Your task to perform on an android device: turn off location Image 0: 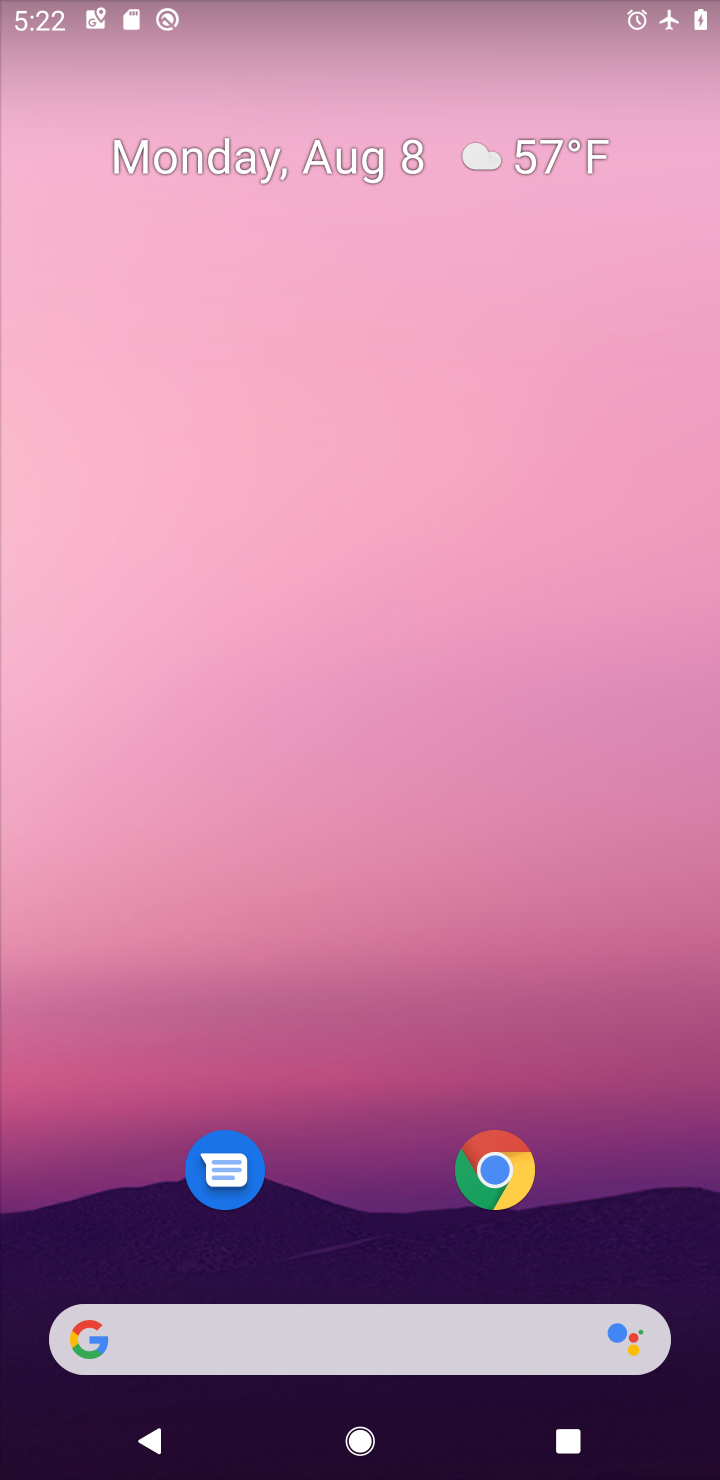
Step 0: drag from (316, 595) to (316, 445)
Your task to perform on an android device: turn off location Image 1: 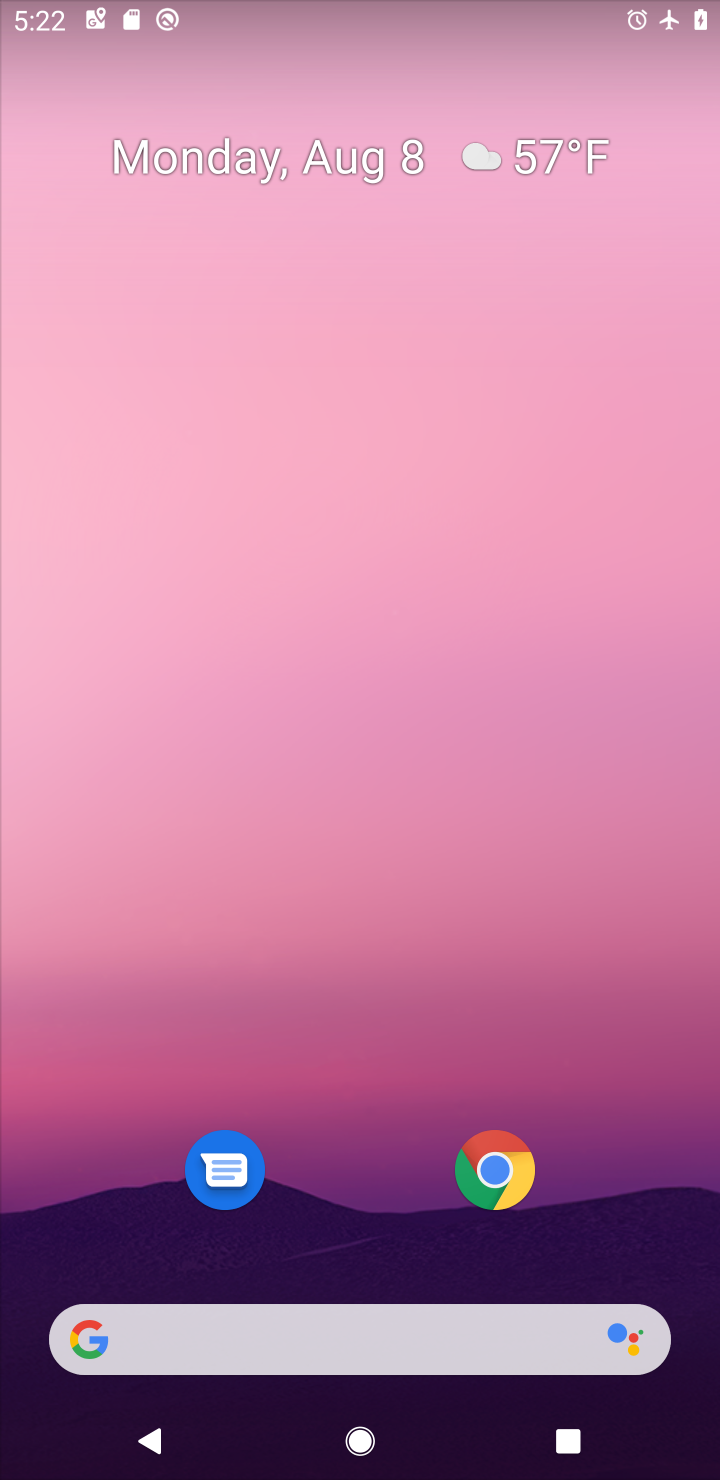
Step 1: drag from (361, 1176) to (361, 270)
Your task to perform on an android device: turn off location Image 2: 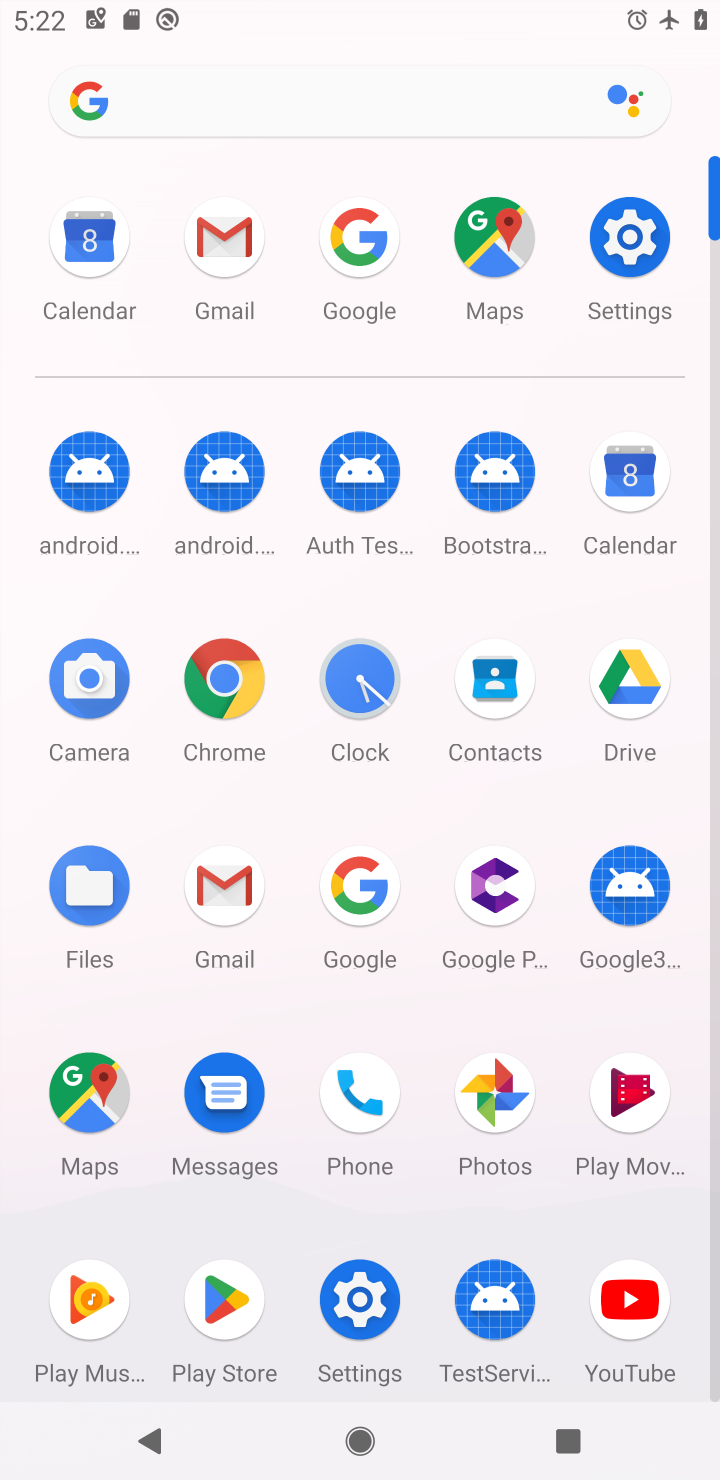
Step 2: click (593, 255)
Your task to perform on an android device: turn off location Image 3: 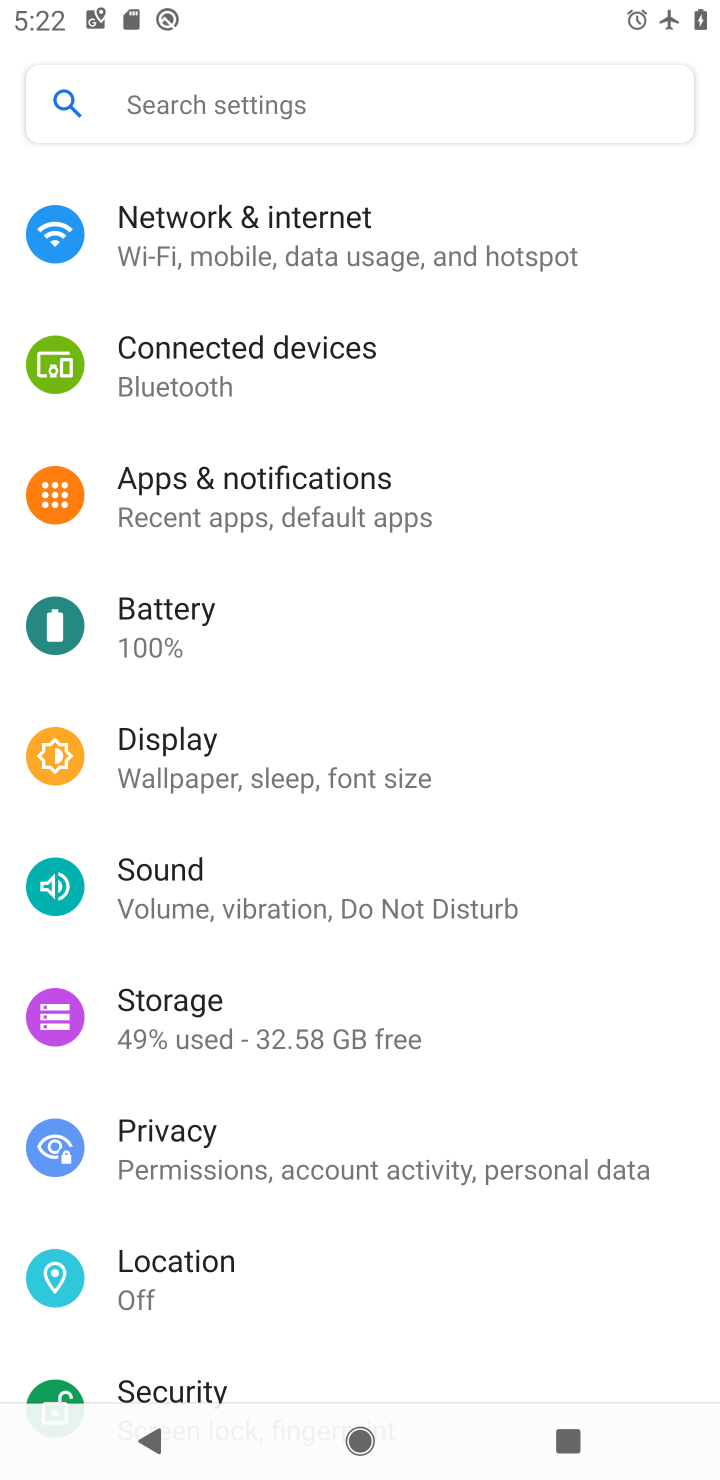
Step 3: click (207, 1256)
Your task to perform on an android device: turn off location Image 4: 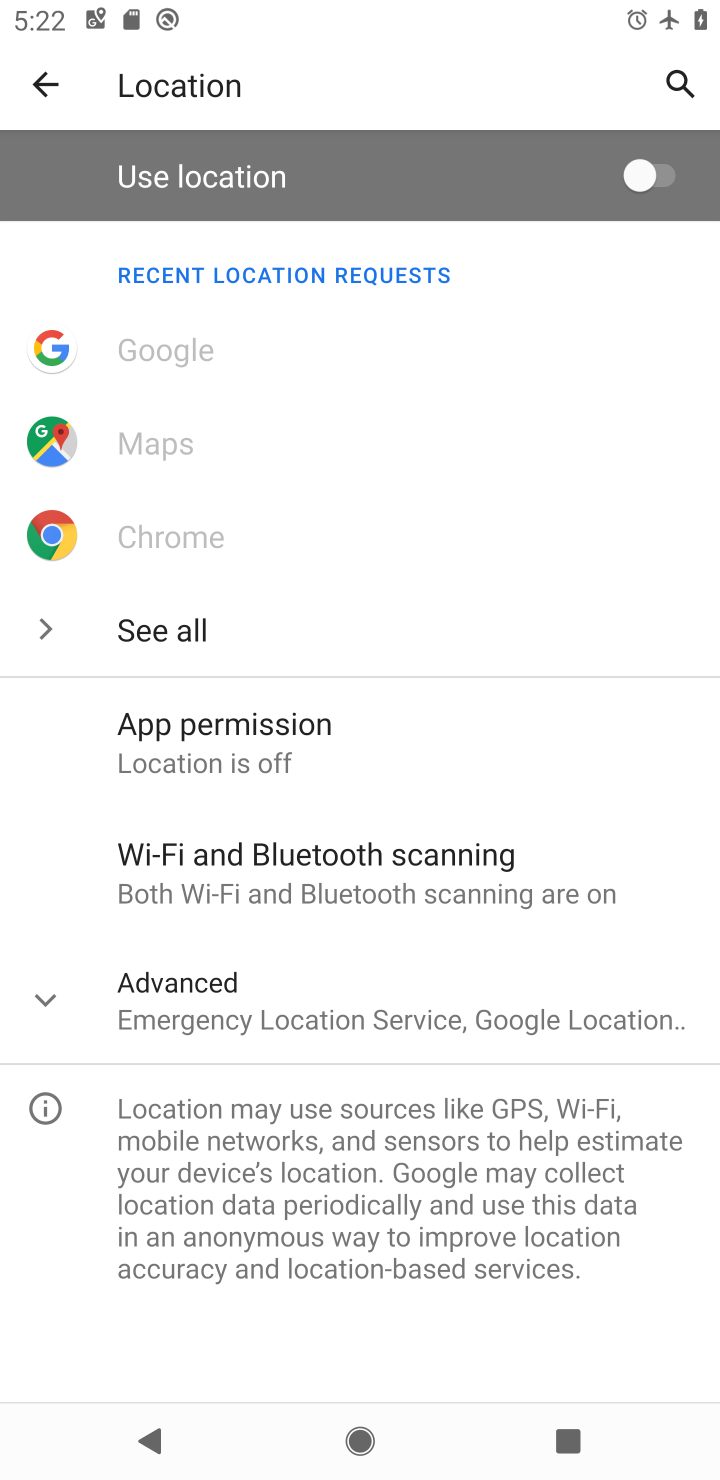
Step 4: task complete